Your task to perform on an android device: What is the news today? Image 0: 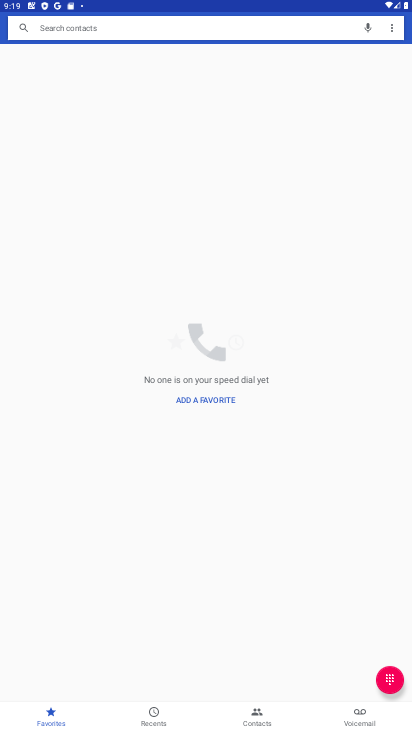
Step 0: press home button
Your task to perform on an android device: What is the news today? Image 1: 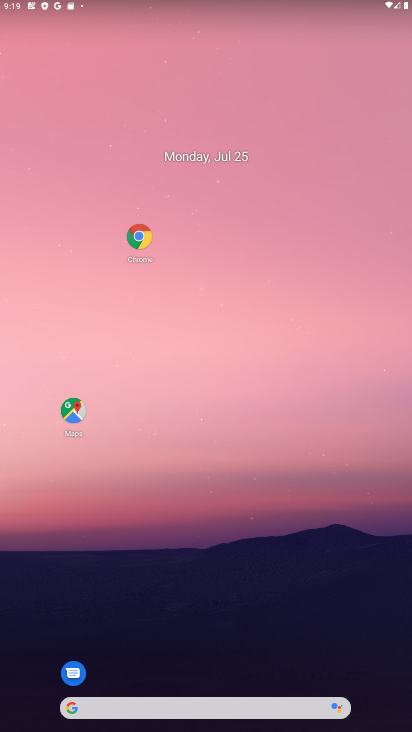
Step 1: click (148, 707)
Your task to perform on an android device: What is the news today? Image 2: 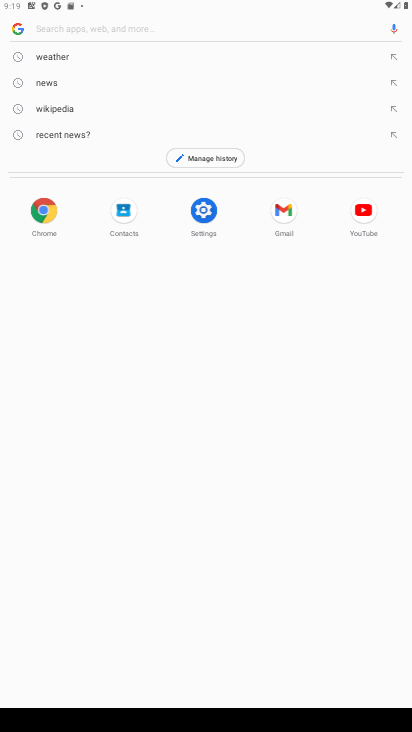
Step 2: type "news today"
Your task to perform on an android device: What is the news today? Image 3: 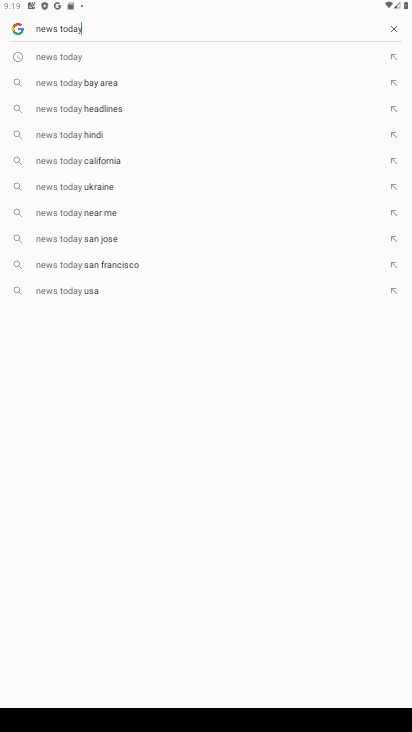
Step 3: click (131, 62)
Your task to perform on an android device: What is the news today? Image 4: 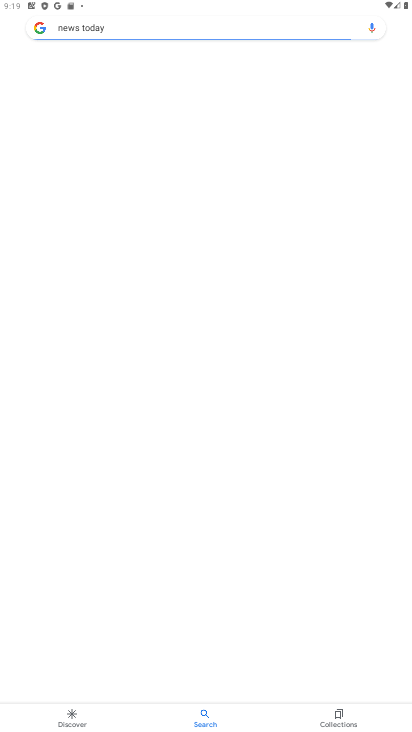
Step 4: task complete